Your task to perform on an android device: turn off improve location accuracy Image 0: 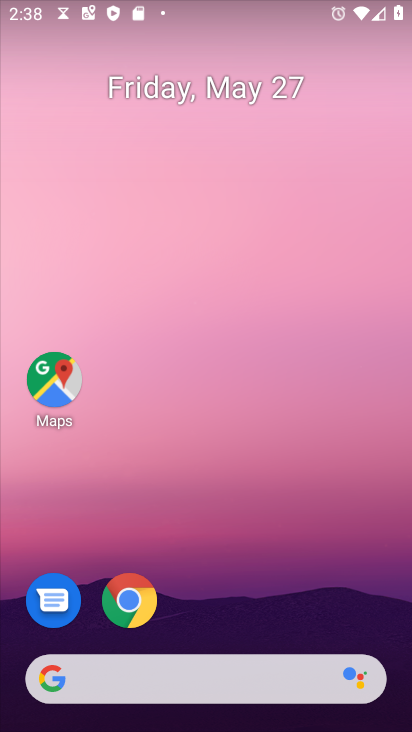
Step 0: drag from (259, 559) to (183, 12)
Your task to perform on an android device: turn off improve location accuracy Image 1: 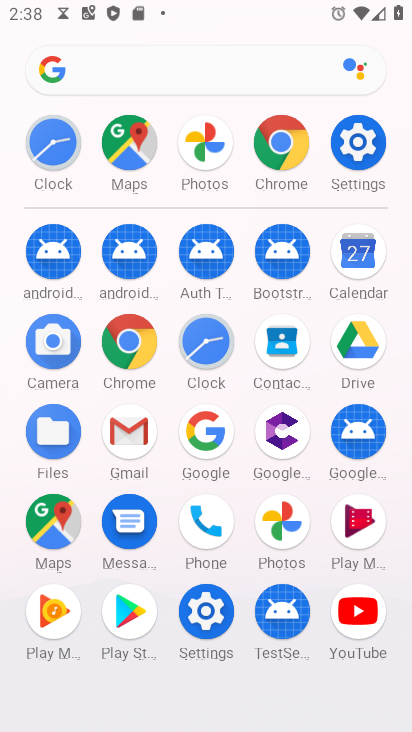
Step 1: click (201, 611)
Your task to perform on an android device: turn off improve location accuracy Image 2: 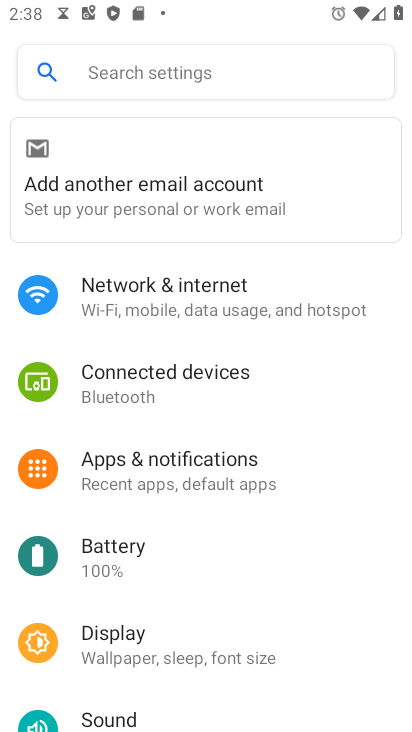
Step 2: drag from (264, 610) to (293, 263)
Your task to perform on an android device: turn off improve location accuracy Image 3: 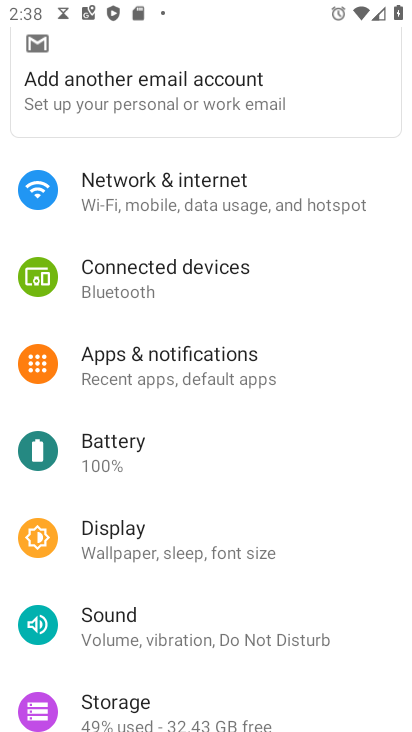
Step 3: drag from (236, 601) to (273, 245)
Your task to perform on an android device: turn off improve location accuracy Image 4: 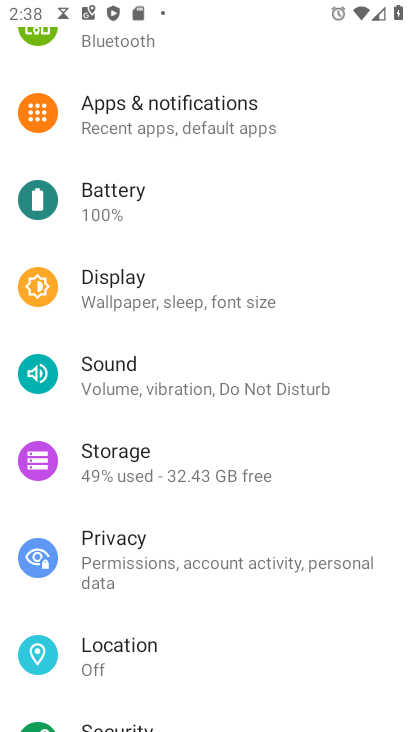
Step 4: click (151, 644)
Your task to perform on an android device: turn off improve location accuracy Image 5: 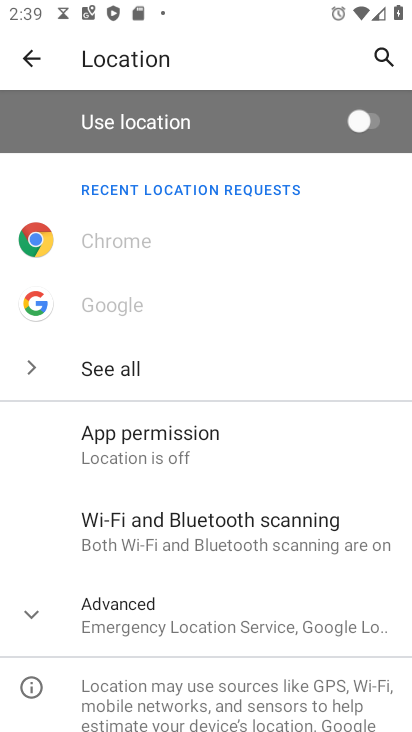
Step 5: click (229, 612)
Your task to perform on an android device: turn off improve location accuracy Image 6: 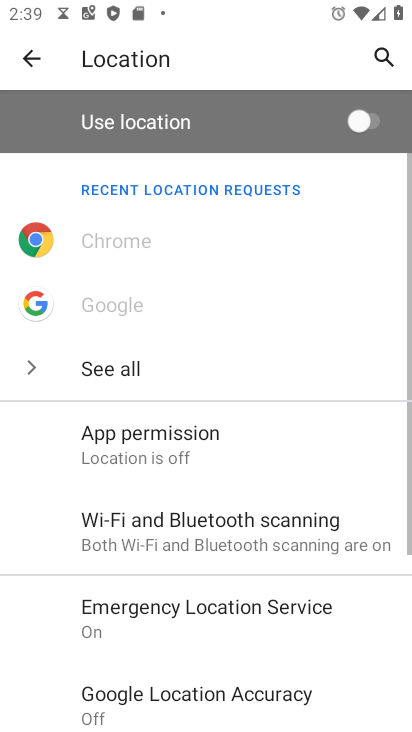
Step 6: drag from (263, 649) to (275, 240)
Your task to perform on an android device: turn off improve location accuracy Image 7: 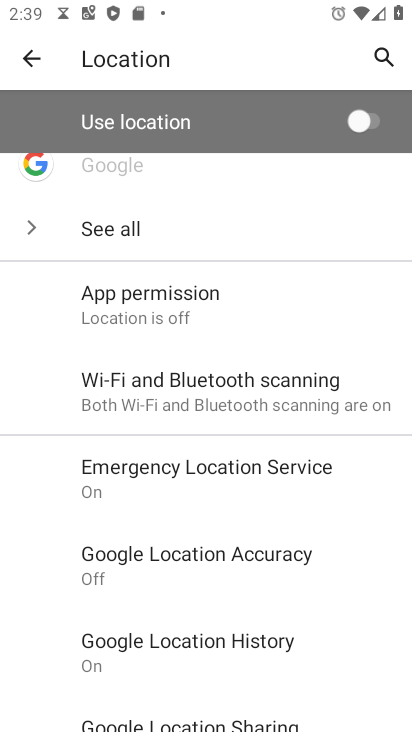
Step 7: click (182, 546)
Your task to perform on an android device: turn off improve location accuracy Image 8: 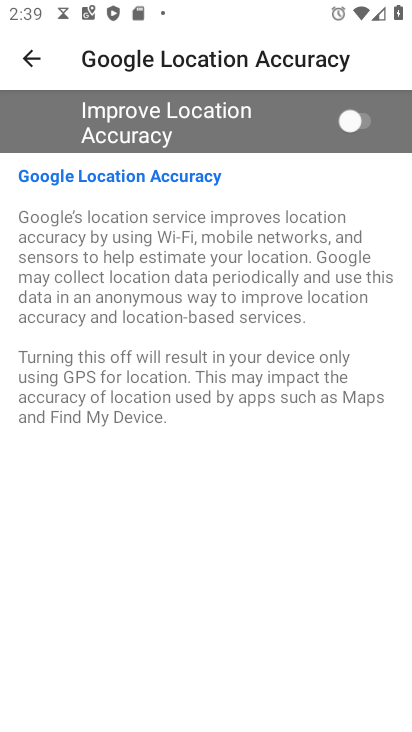
Step 8: press home button
Your task to perform on an android device: turn off improve location accuracy Image 9: 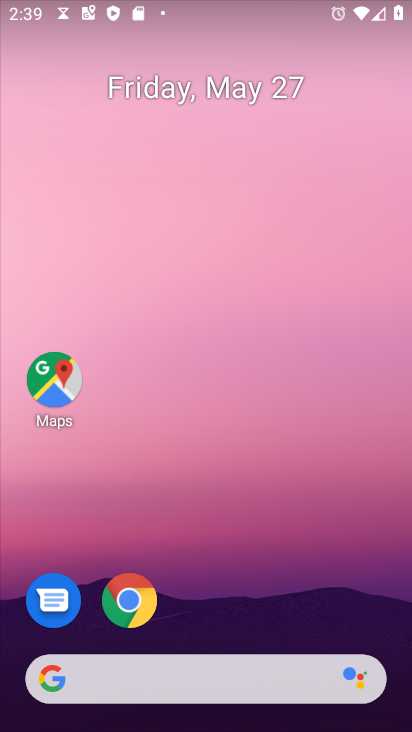
Step 9: drag from (221, 508) to (227, 24)
Your task to perform on an android device: turn off improve location accuracy Image 10: 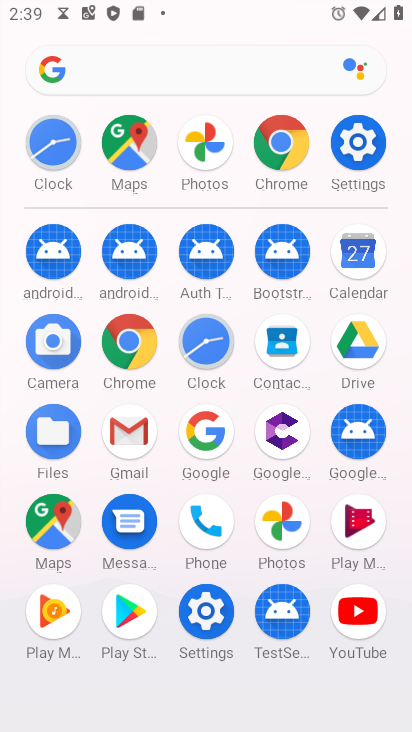
Step 10: drag from (21, 523) to (9, 186)
Your task to perform on an android device: turn off improve location accuracy Image 11: 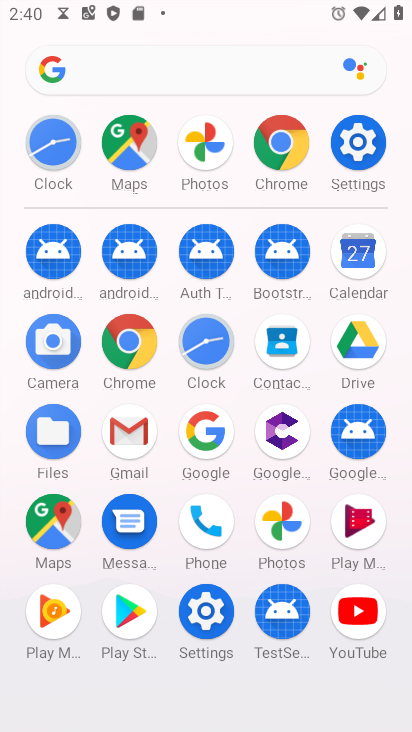
Step 11: click (206, 606)
Your task to perform on an android device: turn off improve location accuracy Image 12: 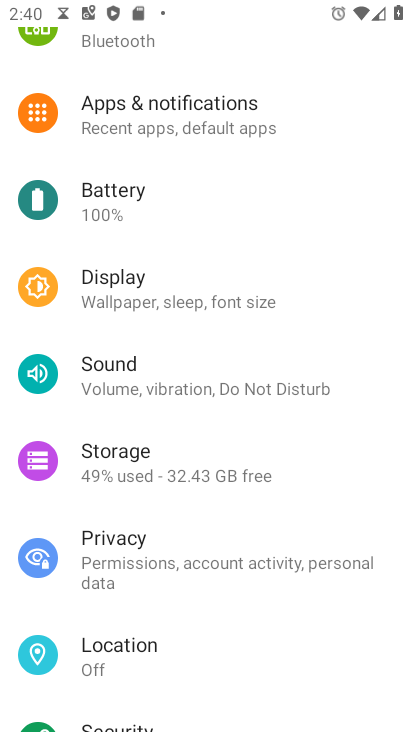
Step 12: drag from (247, 112) to (267, 631)
Your task to perform on an android device: turn off improve location accuracy Image 13: 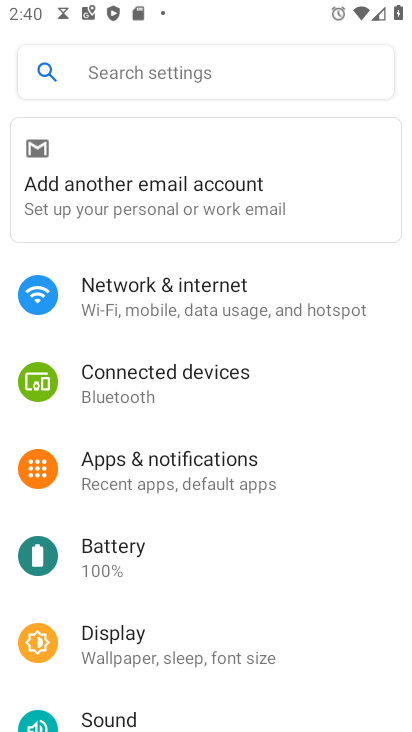
Step 13: drag from (303, 601) to (300, 219)
Your task to perform on an android device: turn off improve location accuracy Image 14: 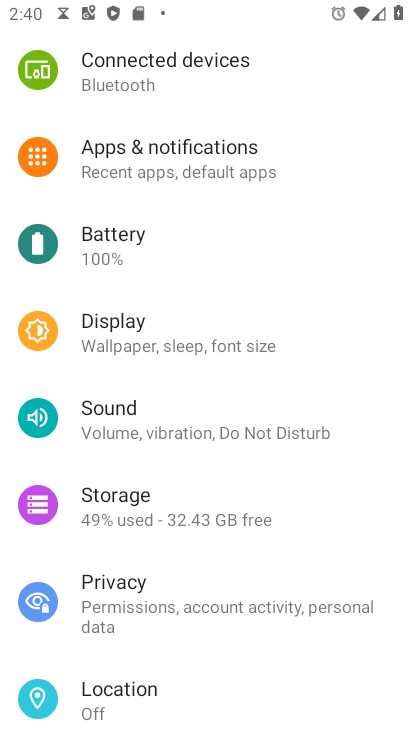
Step 14: drag from (216, 591) to (253, 196)
Your task to perform on an android device: turn off improve location accuracy Image 15: 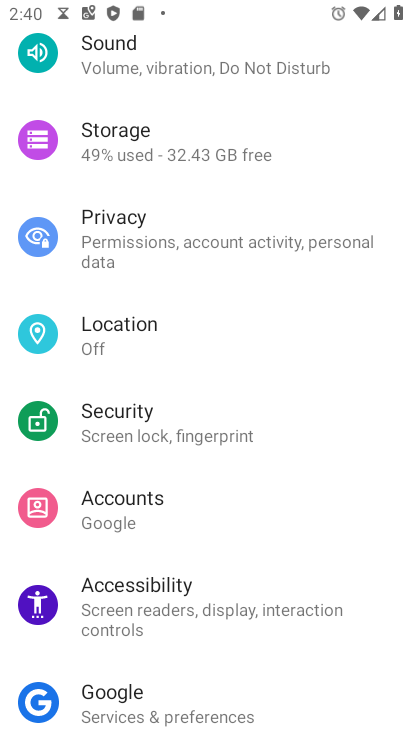
Step 15: click (150, 322)
Your task to perform on an android device: turn off improve location accuracy Image 16: 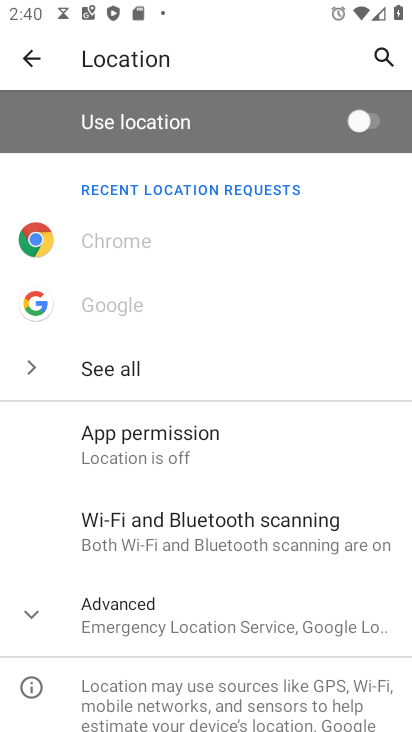
Step 16: drag from (206, 555) to (239, 164)
Your task to perform on an android device: turn off improve location accuracy Image 17: 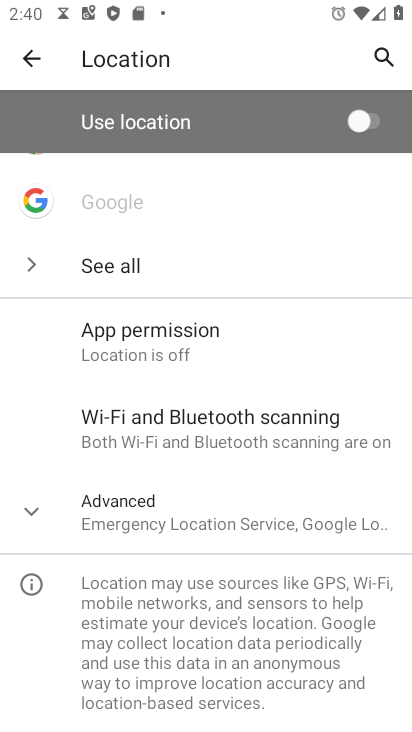
Step 17: click (24, 509)
Your task to perform on an android device: turn off improve location accuracy Image 18: 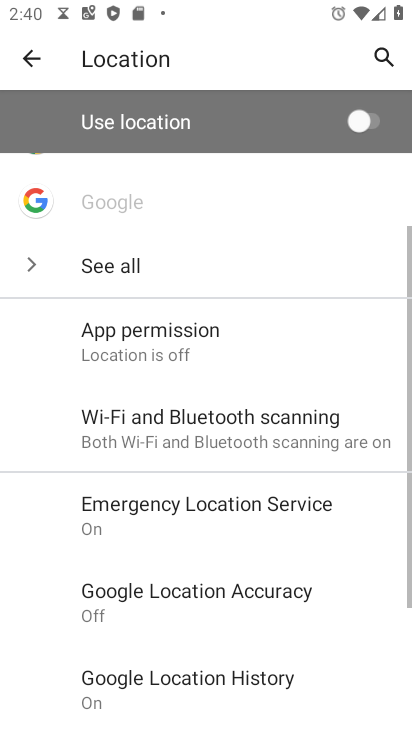
Step 18: task complete